Your task to perform on an android device: turn vacation reply on in the gmail app Image 0: 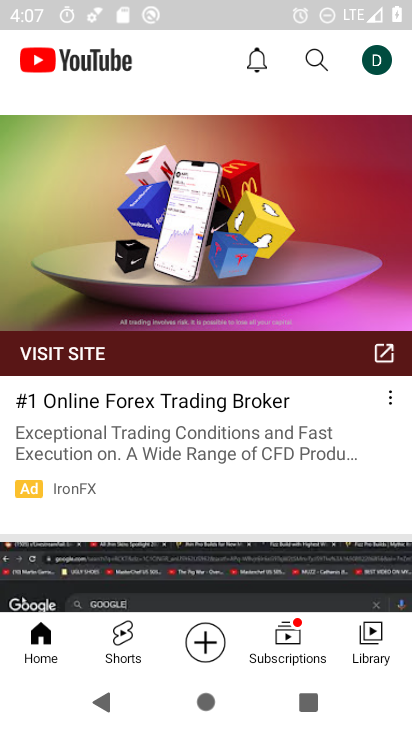
Step 0: press home button
Your task to perform on an android device: turn vacation reply on in the gmail app Image 1: 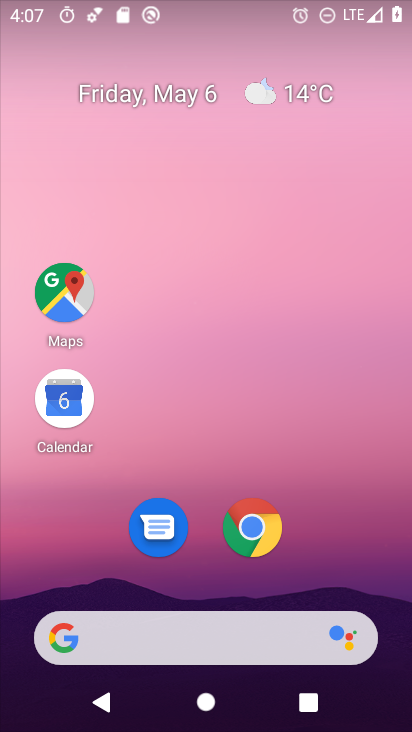
Step 1: drag from (336, 552) to (332, 100)
Your task to perform on an android device: turn vacation reply on in the gmail app Image 2: 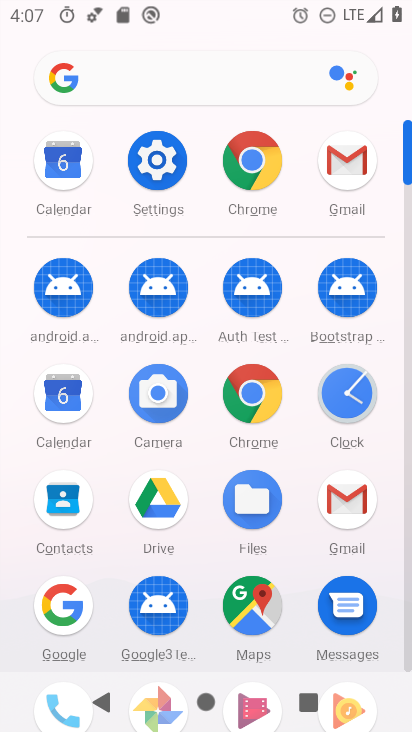
Step 2: click (345, 166)
Your task to perform on an android device: turn vacation reply on in the gmail app Image 3: 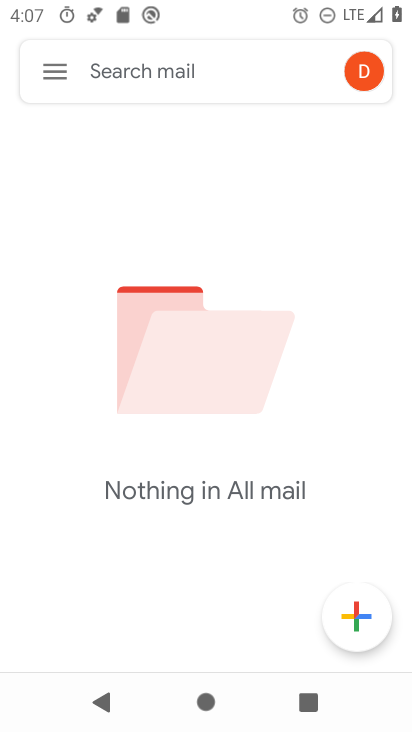
Step 3: click (66, 62)
Your task to perform on an android device: turn vacation reply on in the gmail app Image 4: 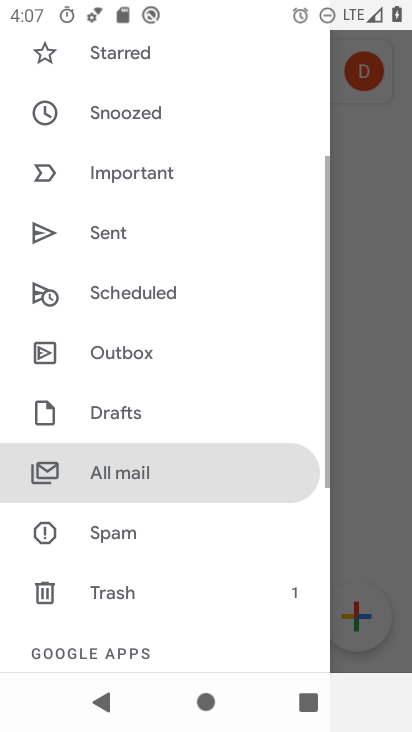
Step 4: drag from (170, 625) to (244, 127)
Your task to perform on an android device: turn vacation reply on in the gmail app Image 5: 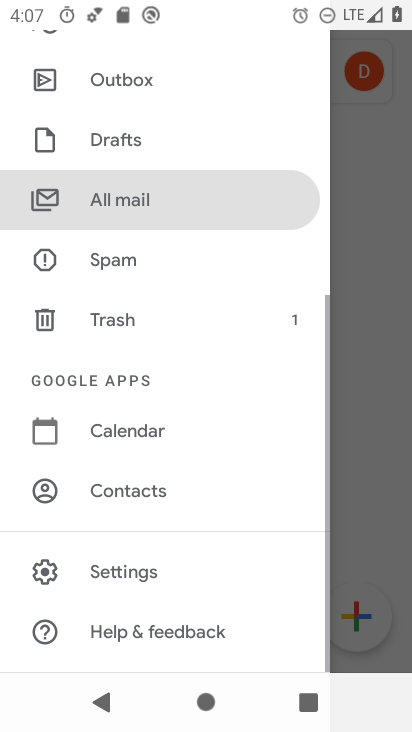
Step 5: click (133, 572)
Your task to perform on an android device: turn vacation reply on in the gmail app Image 6: 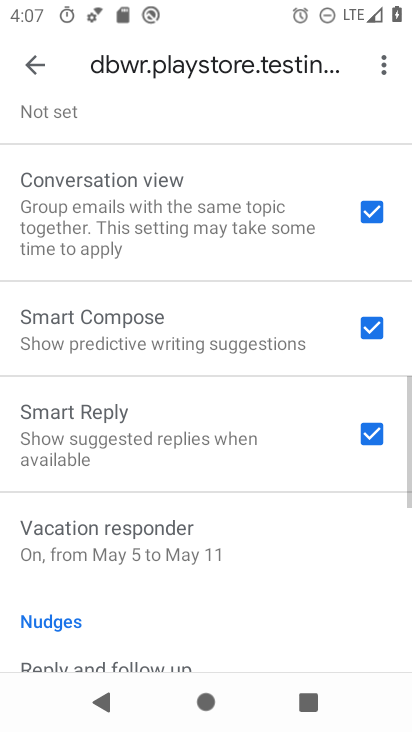
Step 6: drag from (219, 551) to (251, 127)
Your task to perform on an android device: turn vacation reply on in the gmail app Image 7: 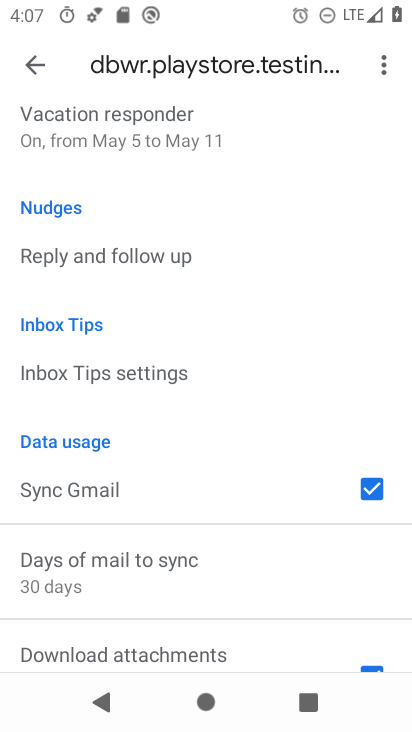
Step 7: drag from (199, 487) to (320, 125)
Your task to perform on an android device: turn vacation reply on in the gmail app Image 8: 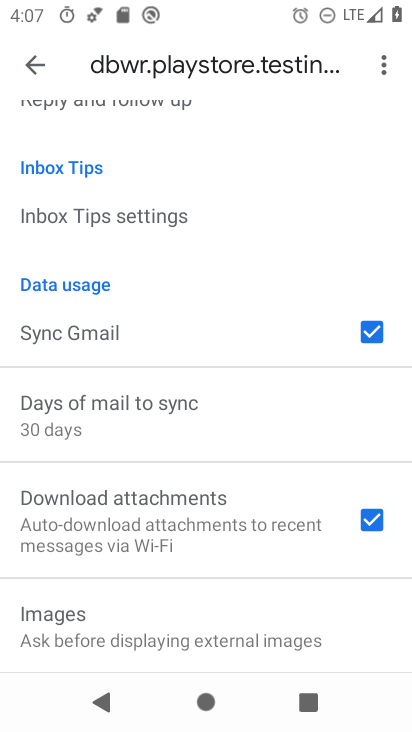
Step 8: drag from (181, 576) to (236, 182)
Your task to perform on an android device: turn vacation reply on in the gmail app Image 9: 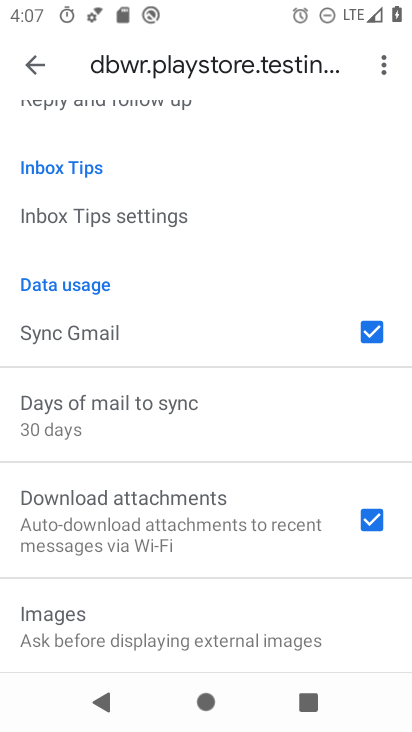
Step 9: drag from (229, 181) to (205, 645)
Your task to perform on an android device: turn vacation reply on in the gmail app Image 10: 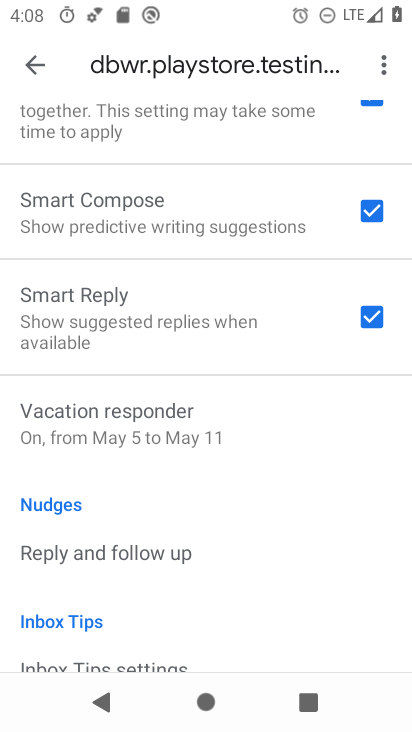
Step 10: click (147, 402)
Your task to perform on an android device: turn vacation reply on in the gmail app Image 11: 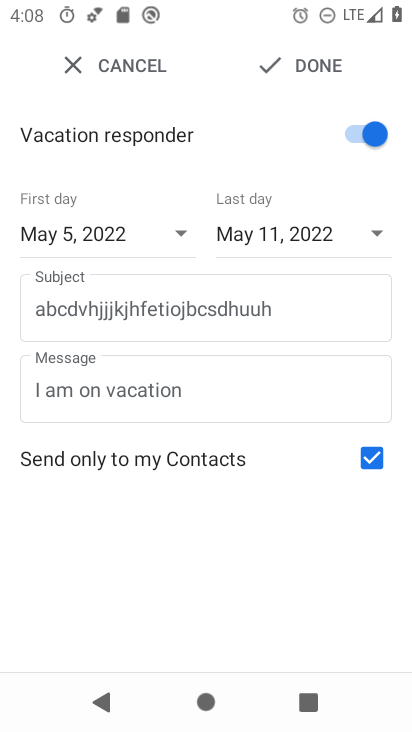
Step 11: task complete